Your task to perform on an android device: Open Amazon Image 0: 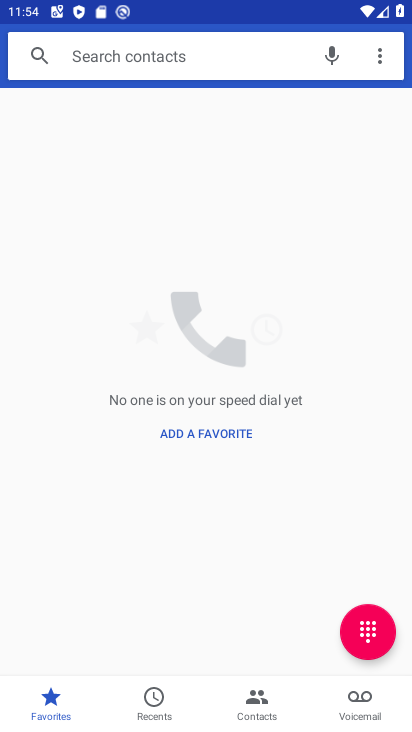
Step 0: press home button
Your task to perform on an android device: Open Amazon Image 1: 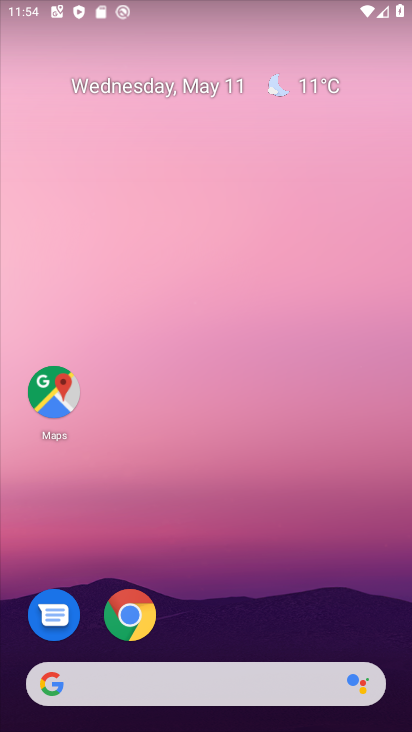
Step 1: click (129, 614)
Your task to perform on an android device: Open Amazon Image 2: 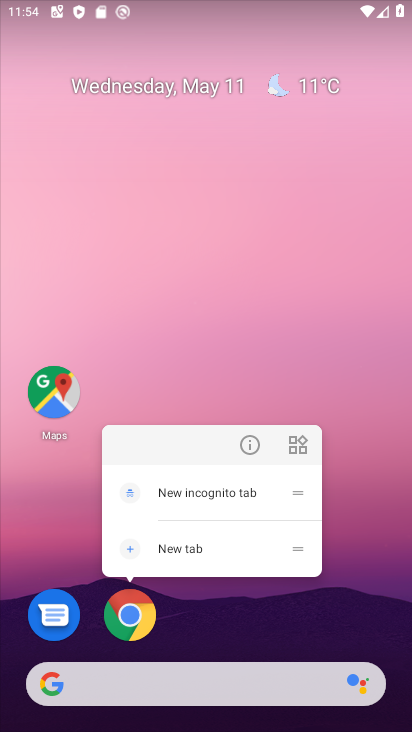
Step 2: click (129, 614)
Your task to perform on an android device: Open Amazon Image 3: 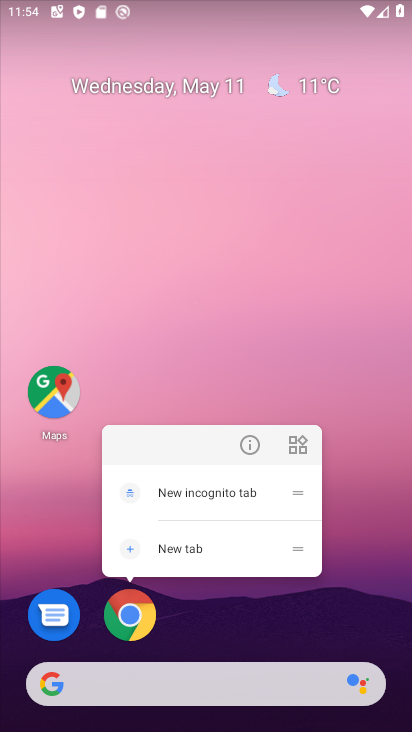
Step 3: click (131, 615)
Your task to perform on an android device: Open Amazon Image 4: 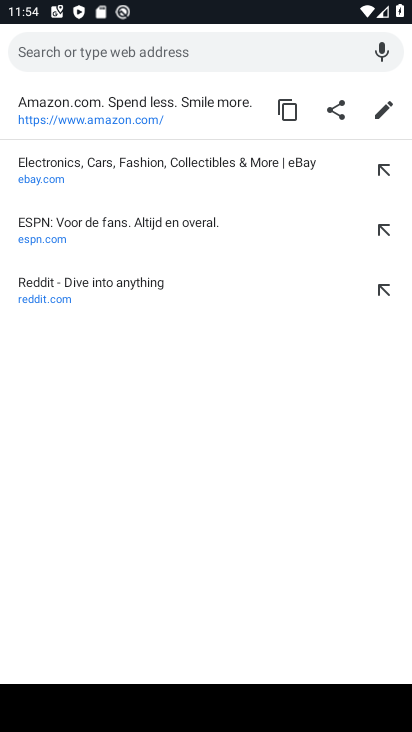
Step 4: click (133, 111)
Your task to perform on an android device: Open Amazon Image 5: 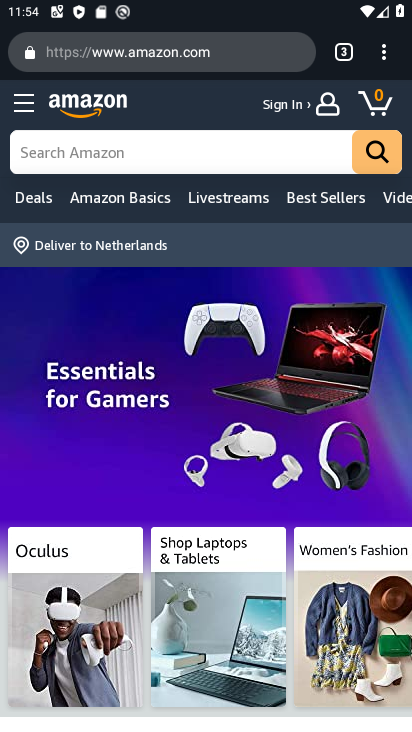
Step 5: task complete